Your task to perform on an android device: Go to display settings Image 0: 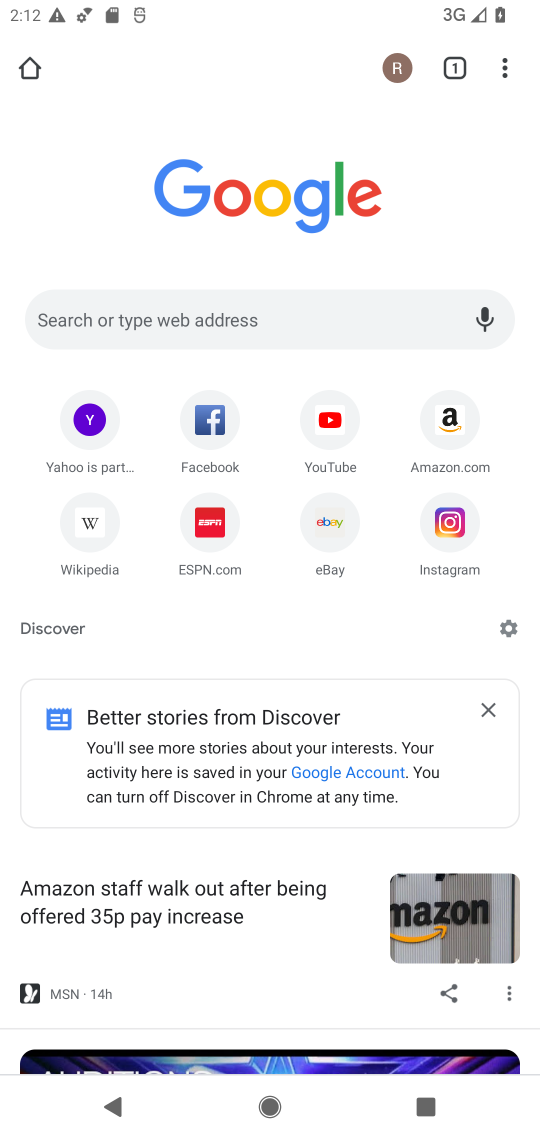
Step 0: press home button
Your task to perform on an android device: Go to display settings Image 1: 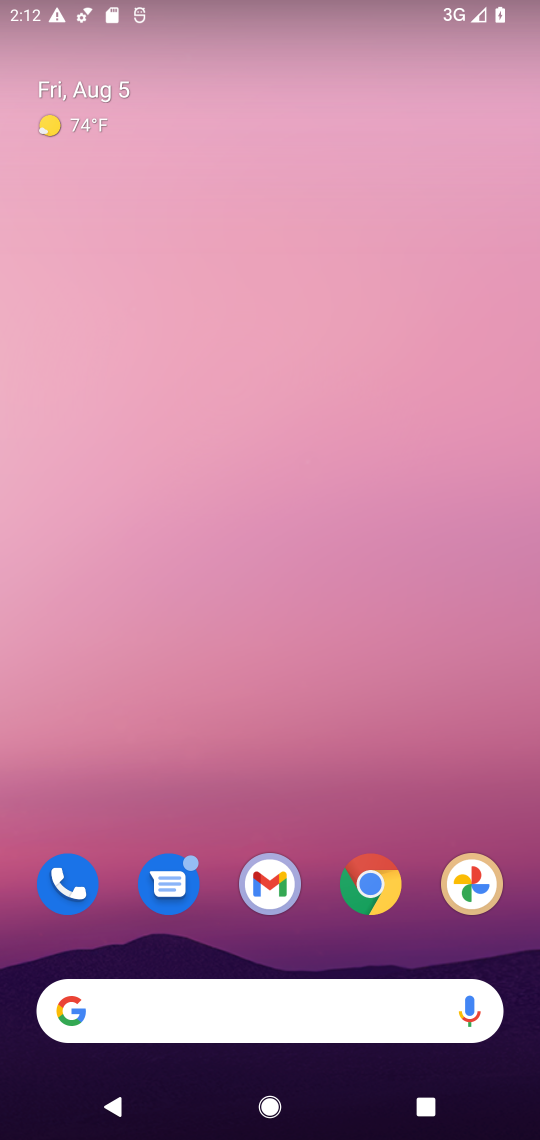
Step 1: drag from (418, 893) to (235, 81)
Your task to perform on an android device: Go to display settings Image 2: 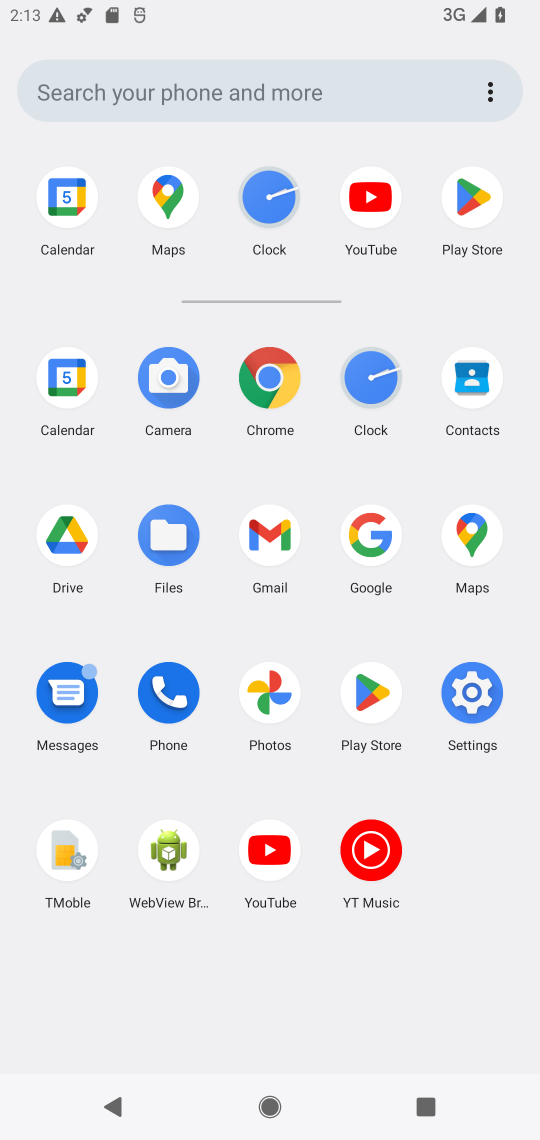
Step 2: click (480, 706)
Your task to perform on an android device: Go to display settings Image 3: 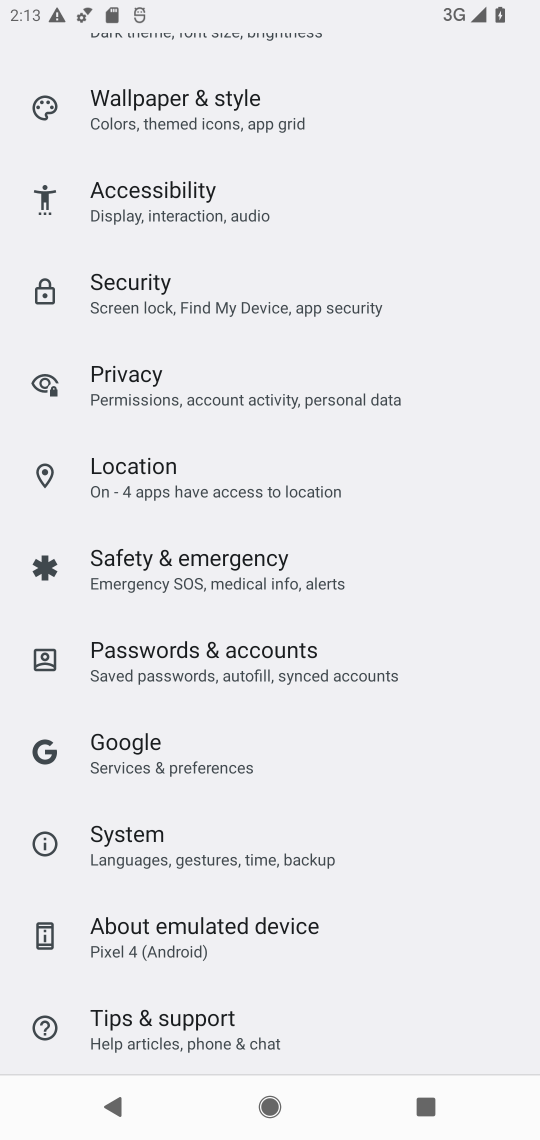
Step 3: drag from (150, 174) to (284, 858)
Your task to perform on an android device: Go to display settings Image 4: 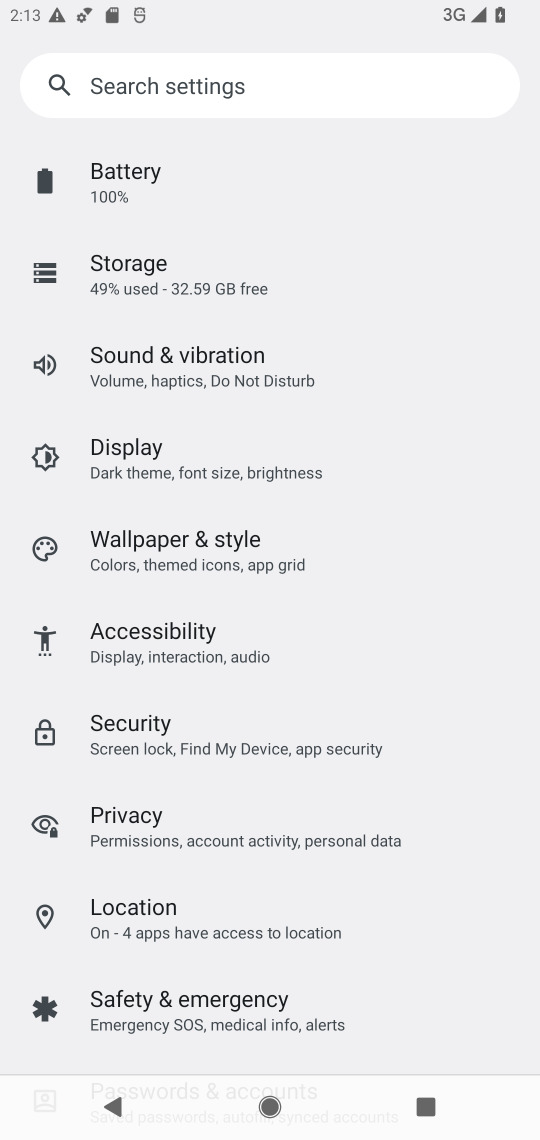
Step 4: drag from (188, 293) to (246, 1087)
Your task to perform on an android device: Go to display settings Image 5: 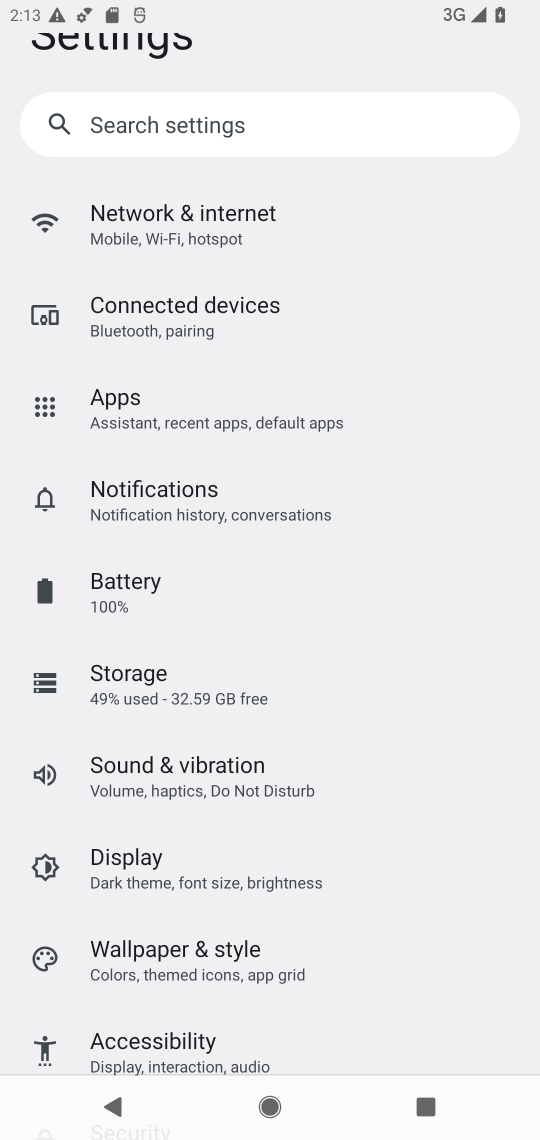
Step 5: click (174, 880)
Your task to perform on an android device: Go to display settings Image 6: 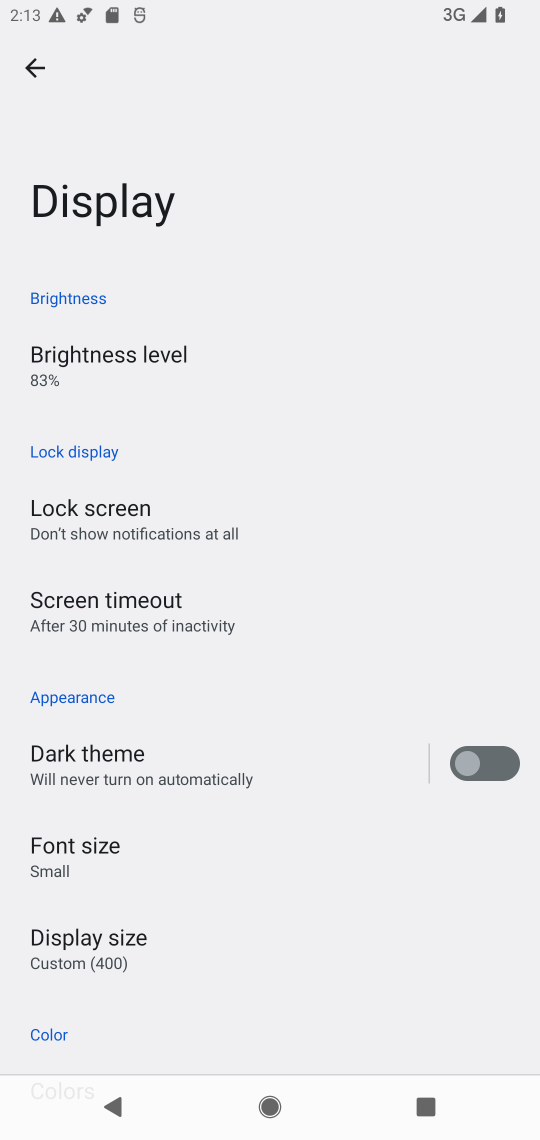
Step 6: task complete